Your task to perform on an android device: change the clock style Image 0: 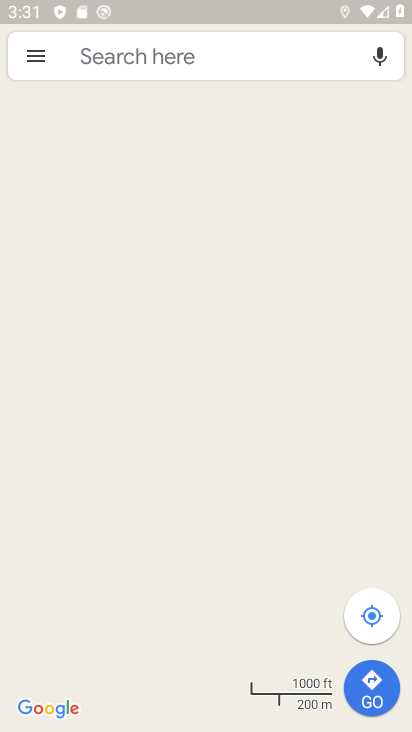
Step 0: press home button
Your task to perform on an android device: change the clock style Image 1: 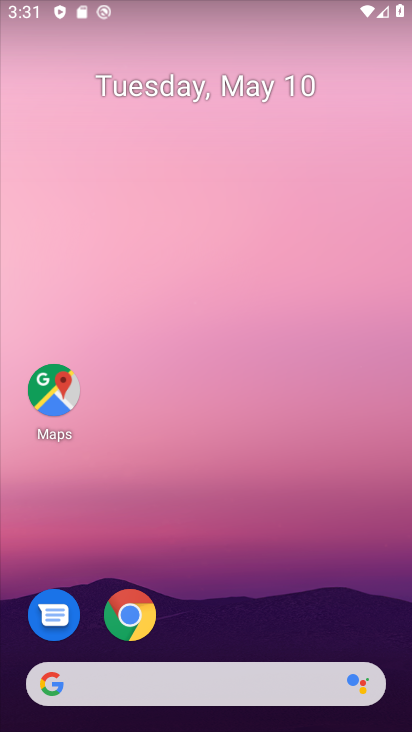
Step 1: drag from (333, 638) to (271, 104)
Your task to perform on an android device: change the clock style Image 2: 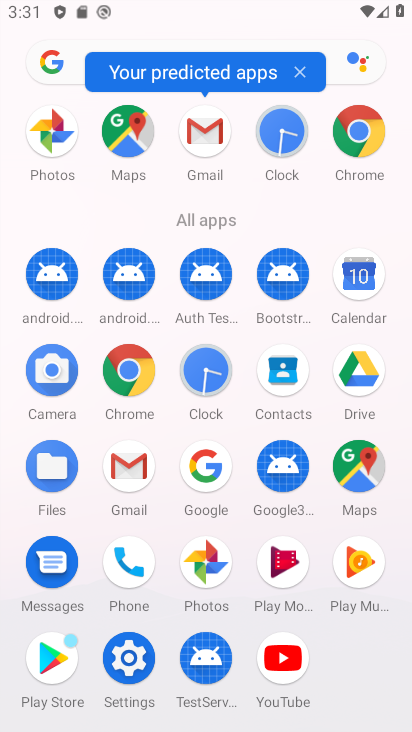
Step 2: click (279, 145)
Your task to perform on an android device: change the clock style Image 3: 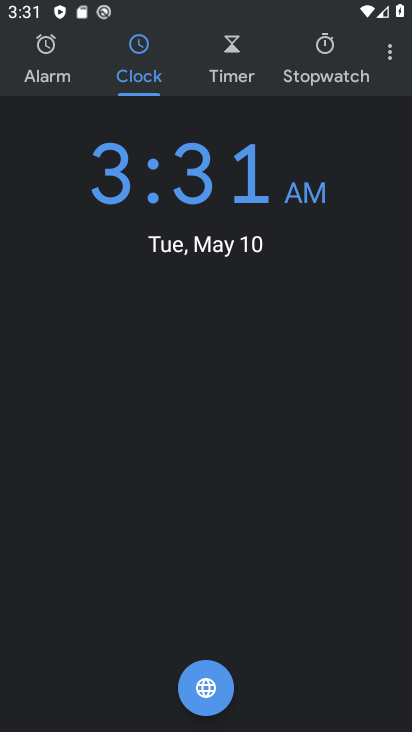
Step 3: click (387, 61)
Your task to perform on an android device: change the clock style Image 4: 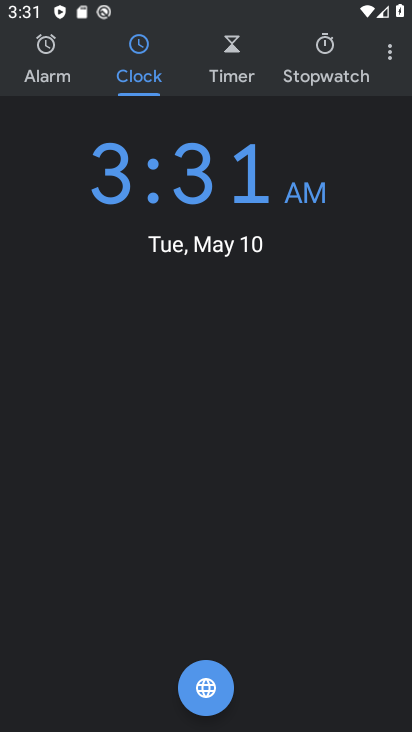
Step 4: click (387, 48)
Your task to perform on an android device: change the clock style Image 5: 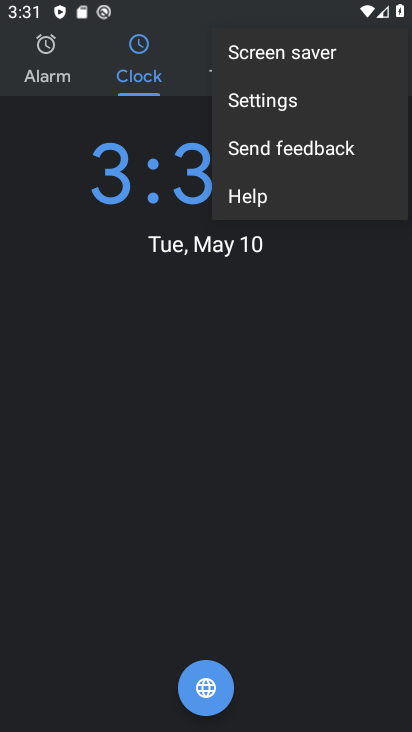
Step 5: click (258, 105)
Your task to perform on an android device: change the clock style Image 6: 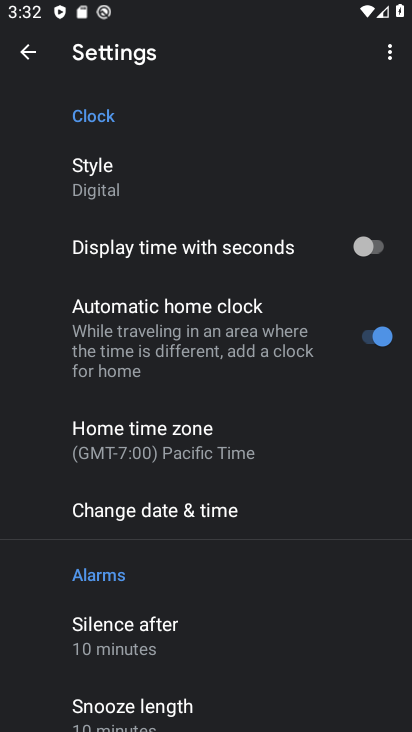
Step 6: click (125, 184)
Your task to perform on an android device: change the clock style Image 7: 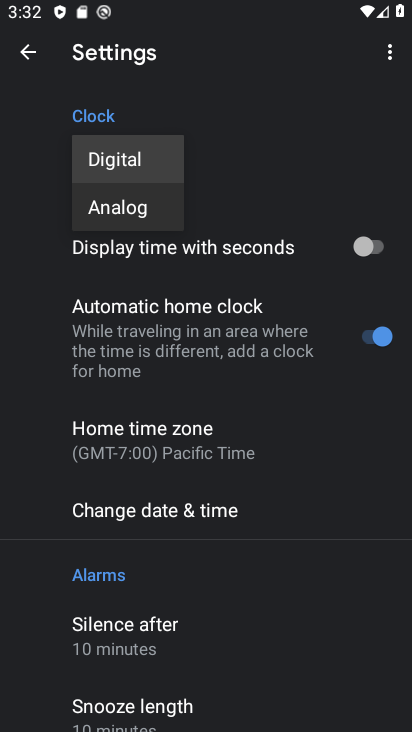
Step 7: click (153, 209)
Your task to perform on an android device: change the clock style Image 8: 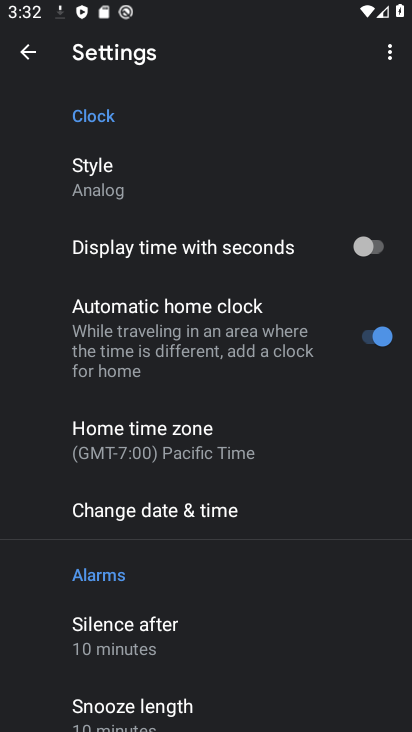
Step 8: task complete